Your task to perform on an android device: change your default location settings in chrome Image 0: 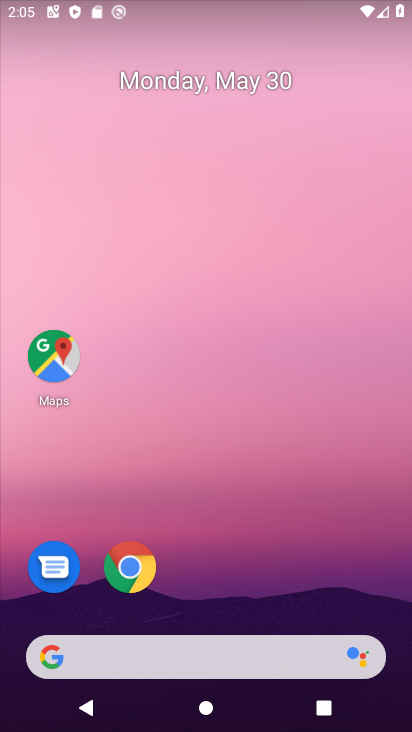
Step 0: drag from (207, 624) to (256, 99)
Your task to perform on an android device: change your default location settings in chrome Image 1: 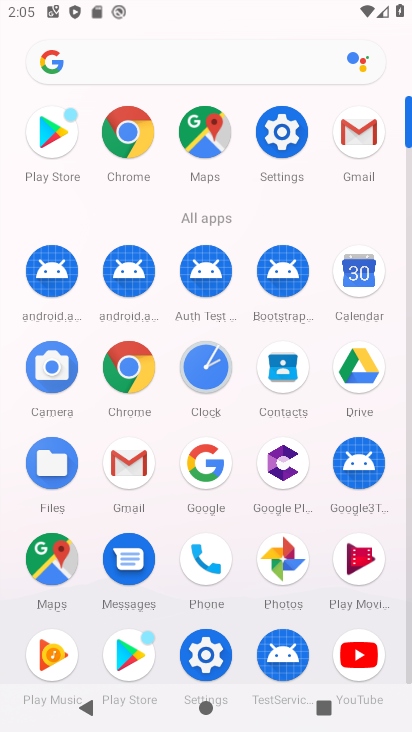
Step 1: click (125, 377)
Your task to perform on an android device: change your default location settings in chrome Image 2: 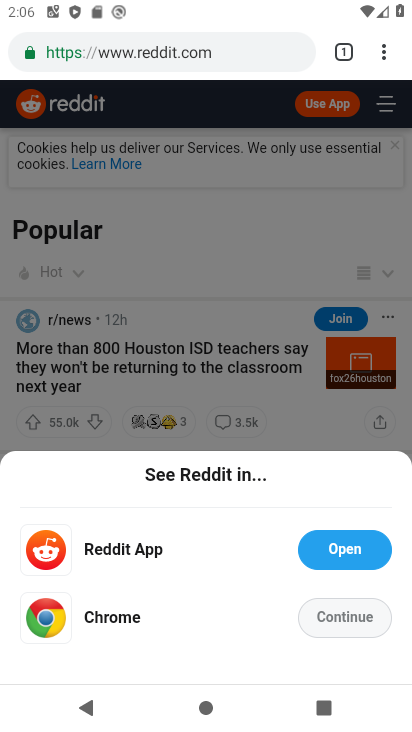
Step 2: click (386, 41)
Your task to perform on an android device: change your default location settings in chrome Image 3: 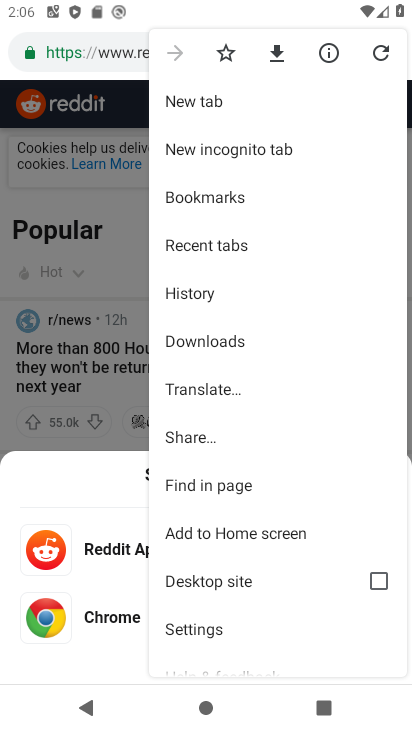
Step 3: drag from (228, 595) to (290, 185)
Your task to perform on an android device: change your default location settings in chrome Image 4: 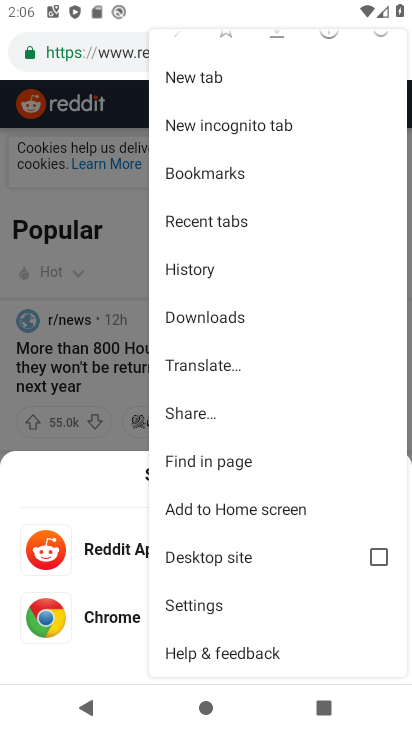
Step 4: click (206, 607)
Your task to perform on an android device: change your default location settings in chrome Image 5: 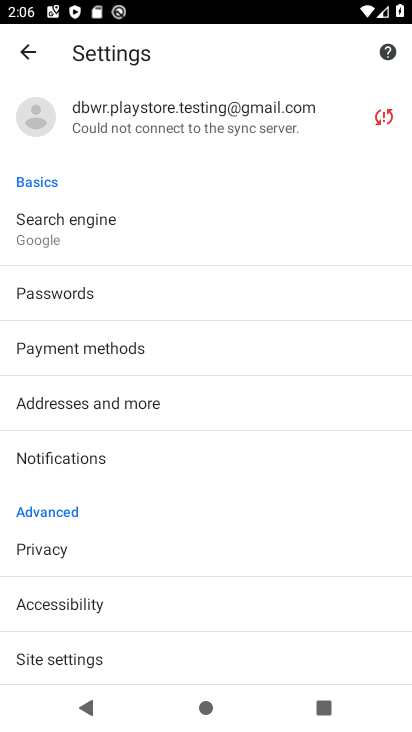
Step 5: drag from (121, 617) to (175, 291)
Your task to perform on an android device: change your default location settings in chrome Image 6: 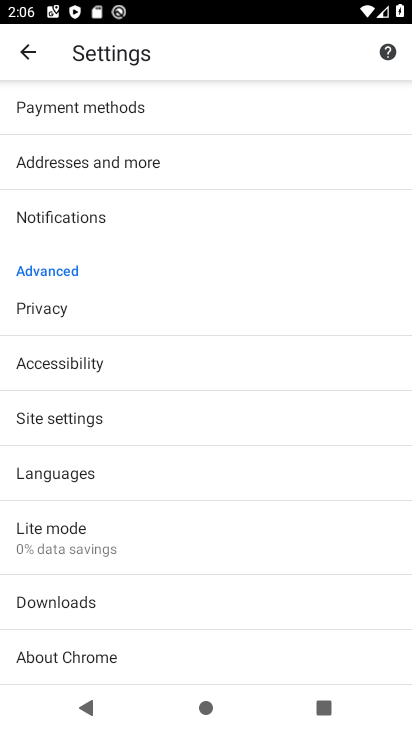
Step 6: click (102, 421)
Your task to perform on an android device: change your default location settings in chrome Image 7: 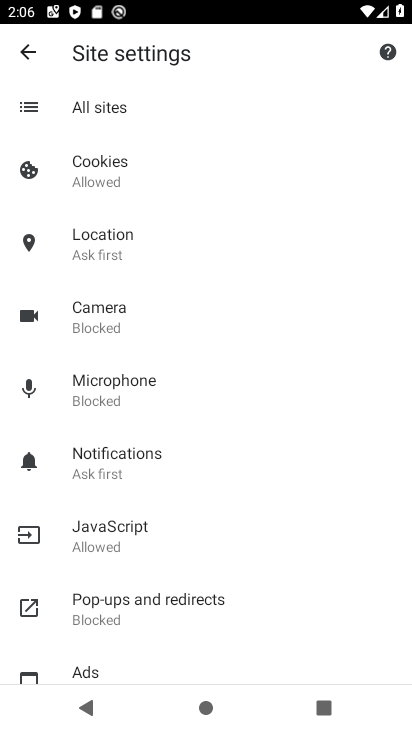
Step 7: click (123, 231)
Your task to perform on an android device: change your default location settings in chrome Image 8: 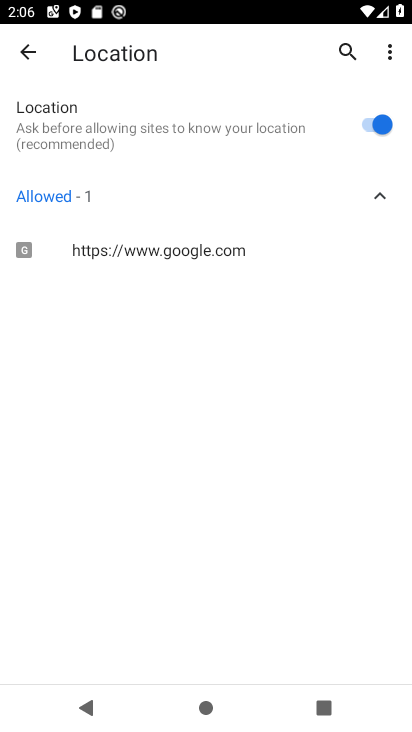
Step 8: click (358, 117)
Your task to perform on an android device: change your default location settings in chrome Image 9: 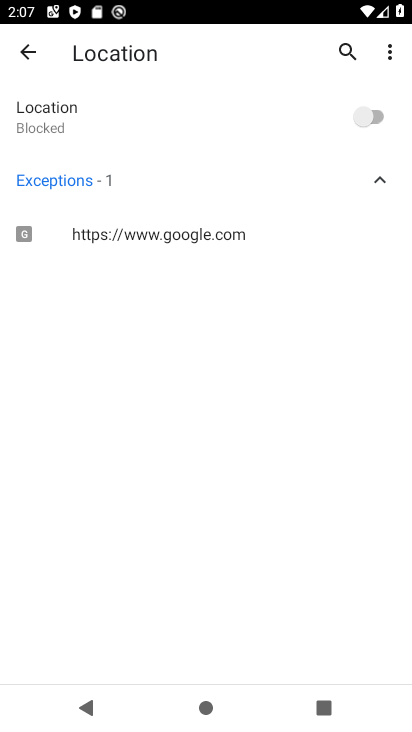
Step 9: task complete